Your task to perform on an android device: check data usage Image 0: 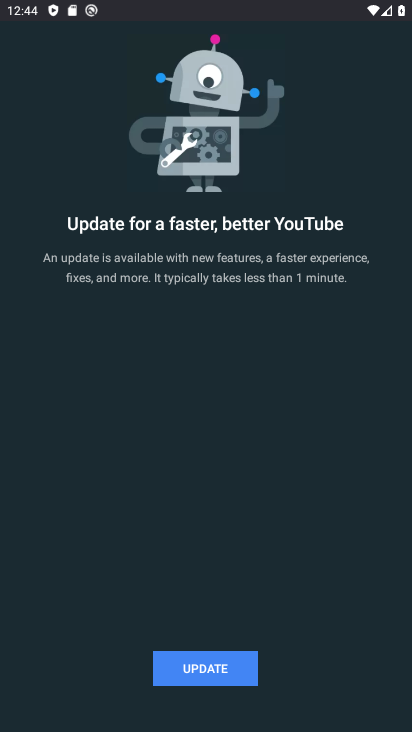
Step 0: drag from (301, 618) to (161, 178)
Your task to perform on an android device: check data usage Image 1: 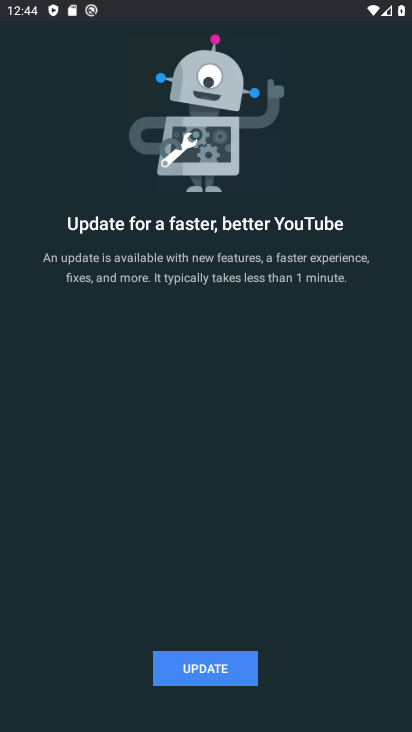
Step 1: press back button
Your task to perform on an android device: check data usage Image 2: 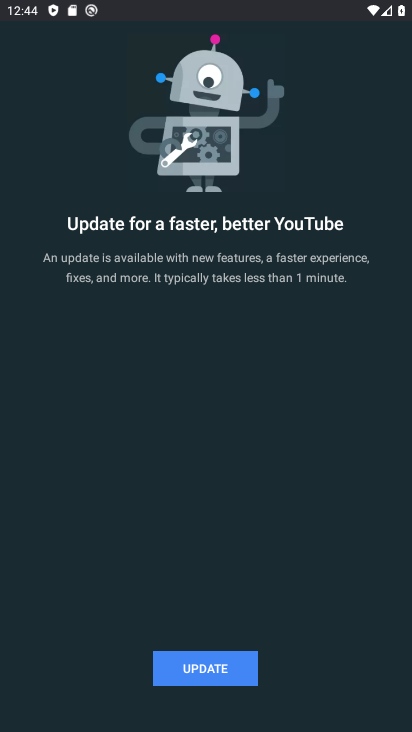
Step 2: press back button
Your task to perform on an android device: check data usage Image 3: 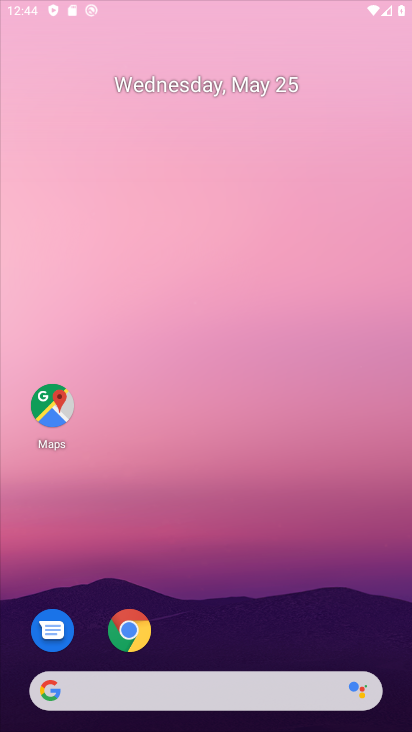
Step 3: press back button
Your task to perform on an android device: check data usage Image 4: 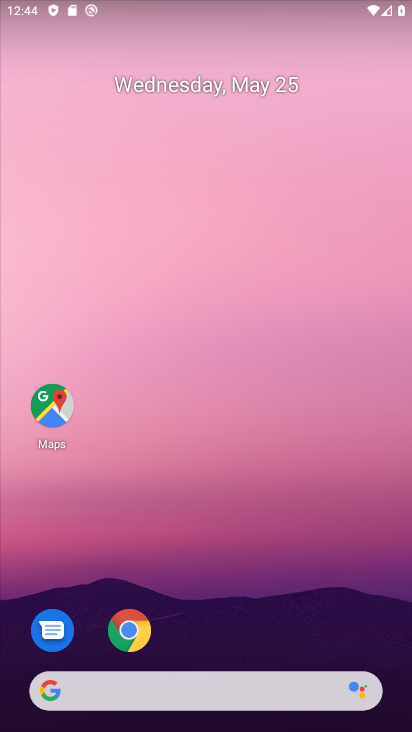
Step 4: drag from (289, 655) to (155, 46)
Your task to perform on an android device: check data usage Image 5: 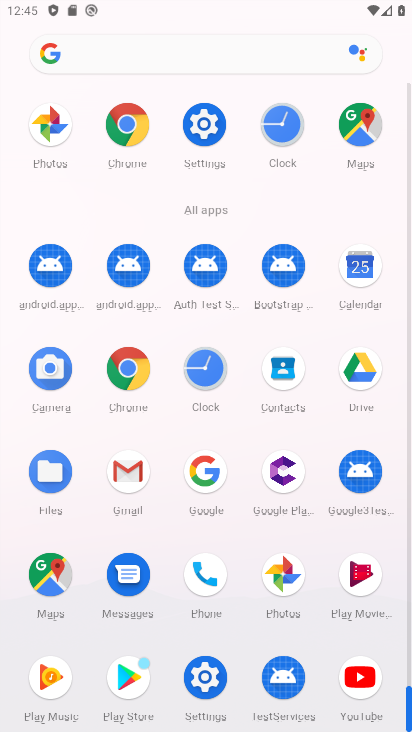
Step 5: click (209, 135)
Your task to perform on an android device: check data usage Image 6: 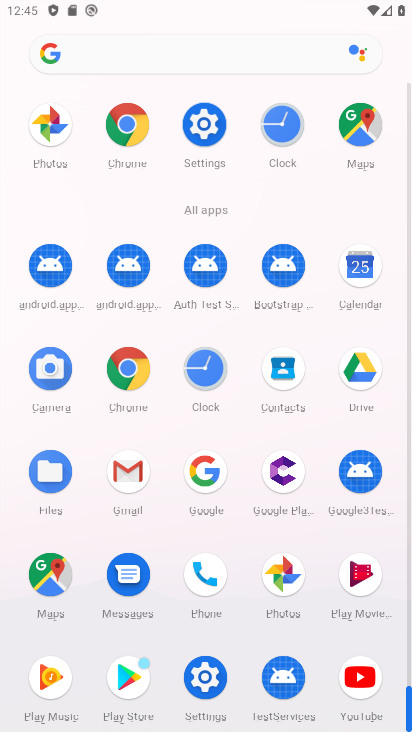
Step 6: click (210, 134)
Your task to perform on an android device: check data usage Image 7: 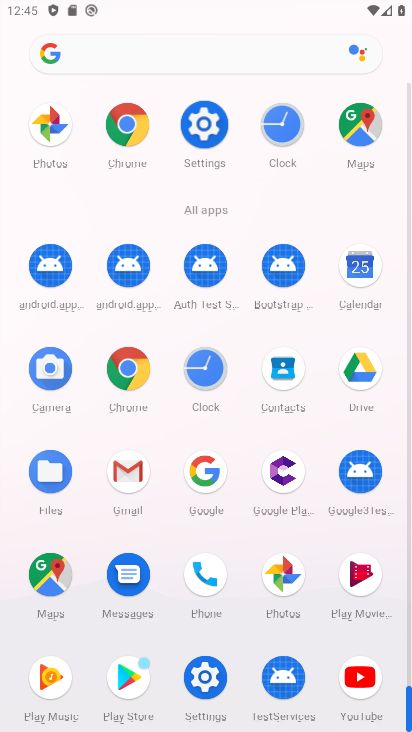
Step 7: click (210, 134)
Your task to perform on an android device: check data usage Image 8: 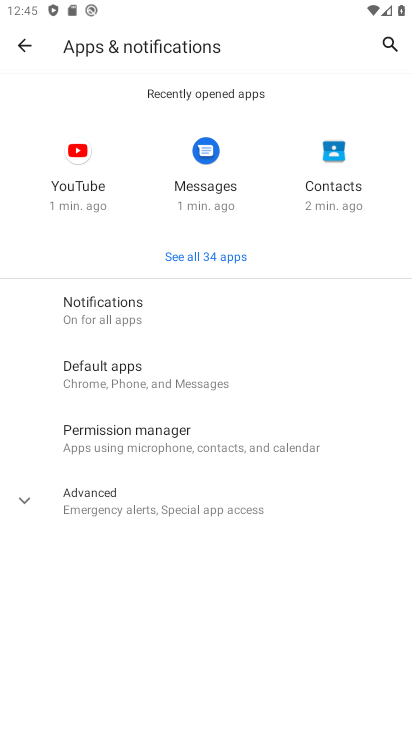
Step 8: click (98, 318)
Your task to perform on an android device: check data usage Image 9: 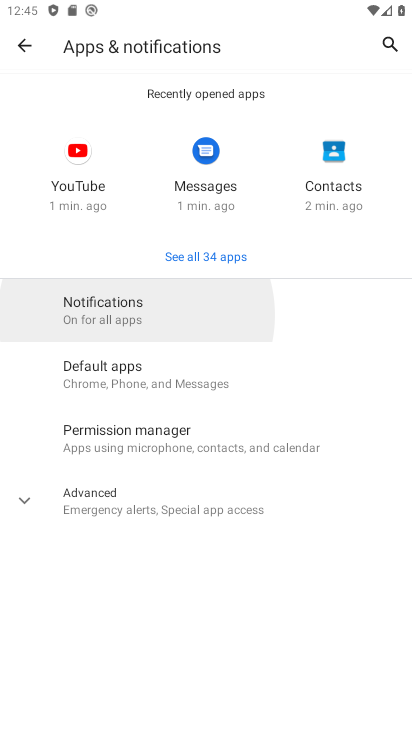
Step 9: click (97, 319)
Your task to perform on an android device: check data usage Image 10: 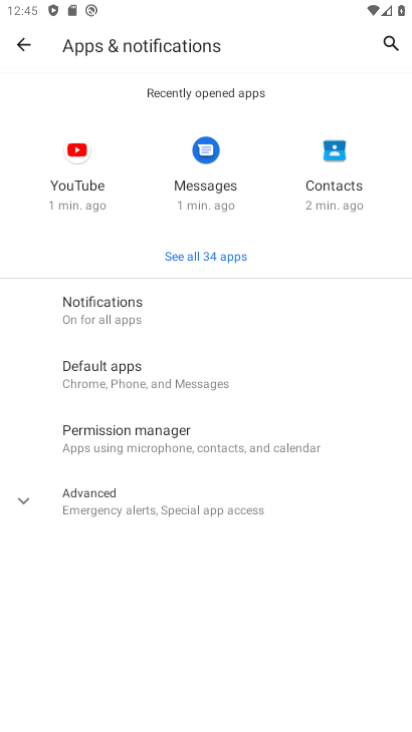
Step 10: click (98, 319)
Your task to perform on an android device: check data usage Image 11: 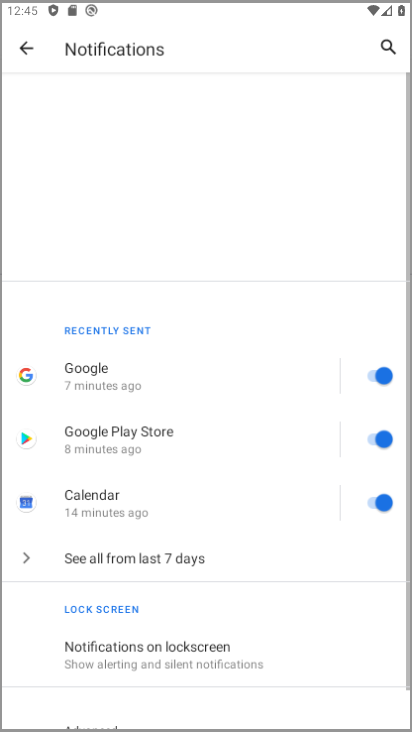
Step 11: click (101, 319)
Your task to perform on an android device: check data usage Image 12: 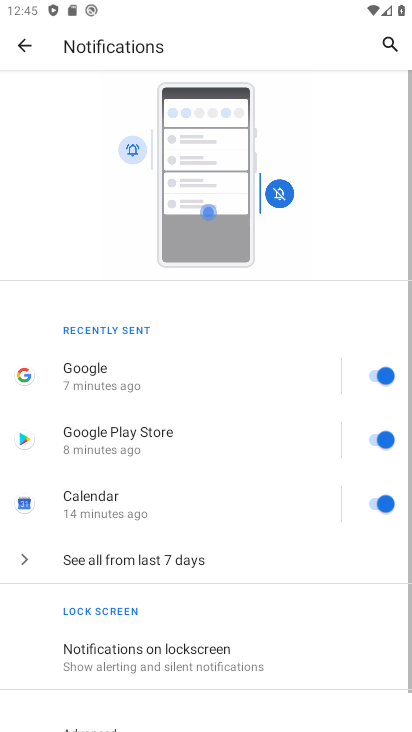
Step 12: click (101, 319)
Your task to perform on an android device: check data usage Image 13: 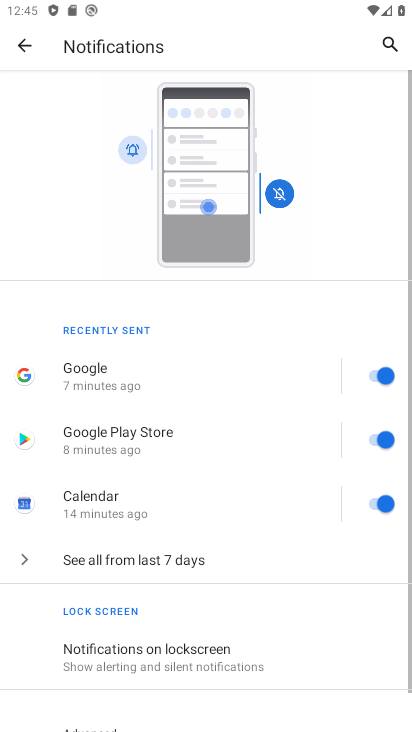
Step 13: click (101, 319)
Your task to perform on an android device: check data usage Image 14: 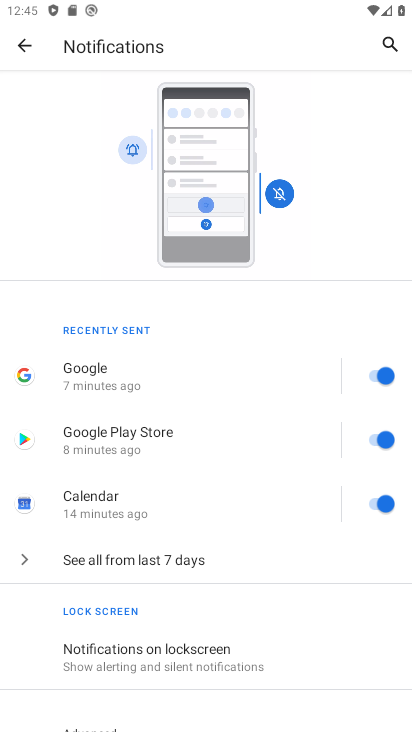
Step 14: task complete